Your task to perform on an android device: Open Android settings Image 0: 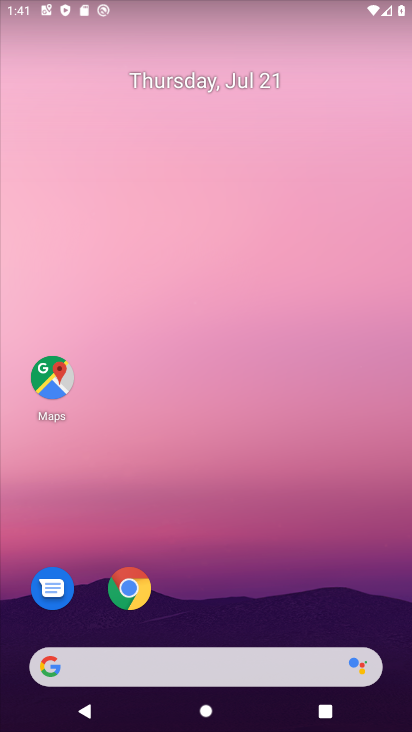
Step 0: drag from (210, 619) to (165, 31)
Your task to perform on an android device: Open Android settings Image 1: 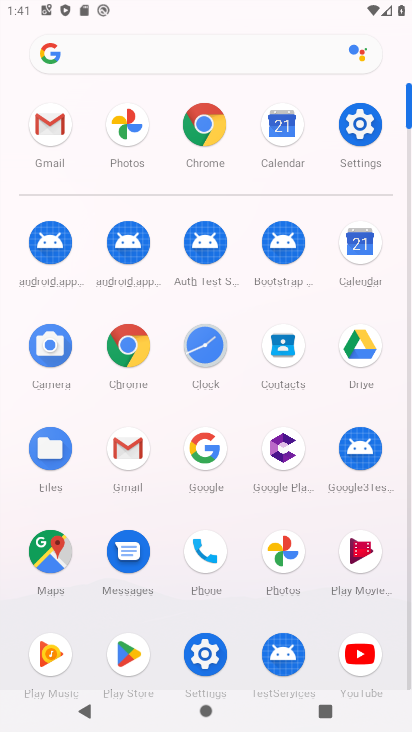
Step 1: click (345, 134)
Your task to perform on an android device: Open Android settings Image 2: 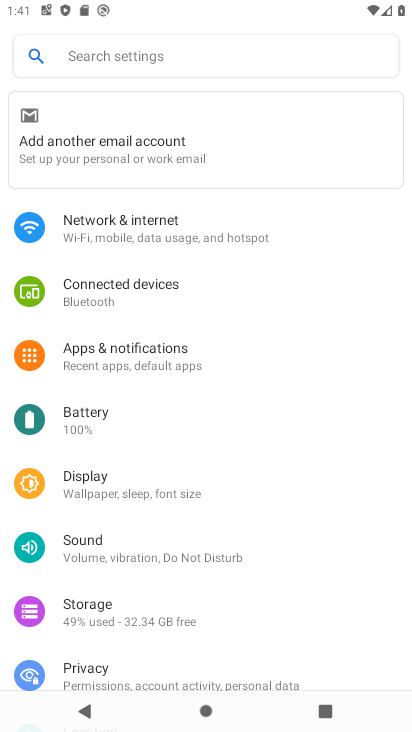
Step 2: task complete